Your task to perform on an android device: What's on my calendar tomorrow? Image 0: 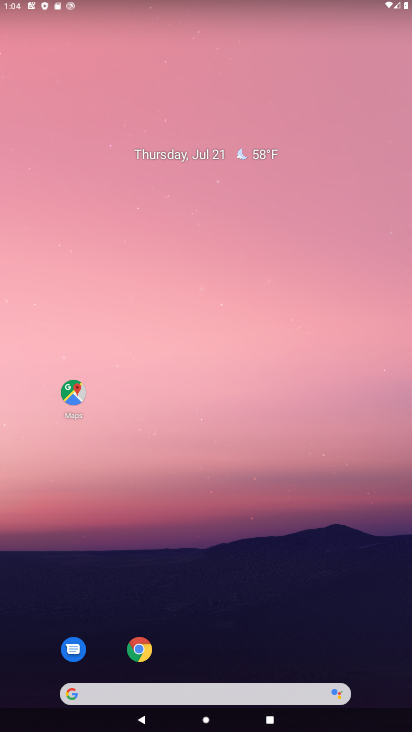
Step 0: drag from (347, 661) to (177, 6)
Your task to perform on an android device: What's on my calendar tomorrow? Image 1: 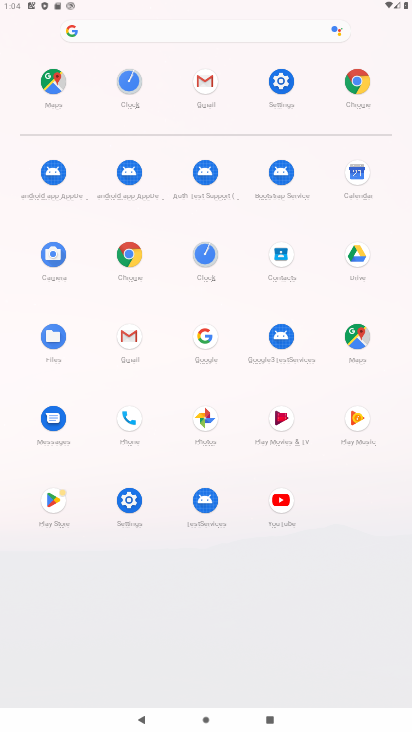
Step 1: click (339, 181)
Your task to perform on an android device: What's on my calendar tomorrow? Image 2: 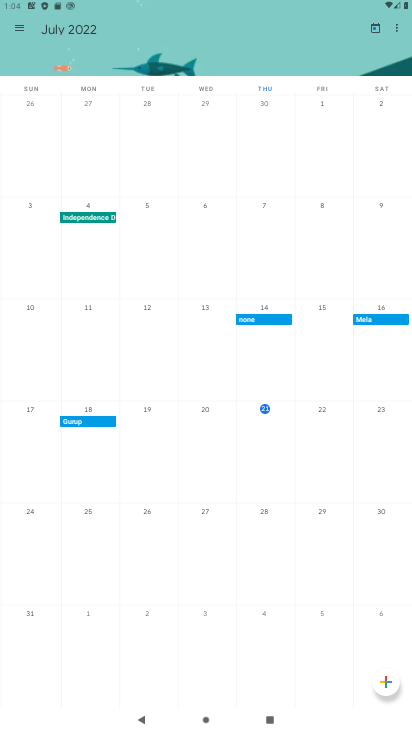
Step 2: task complete